Your task to perform on an android device: Go to ESPN.com Image 0: 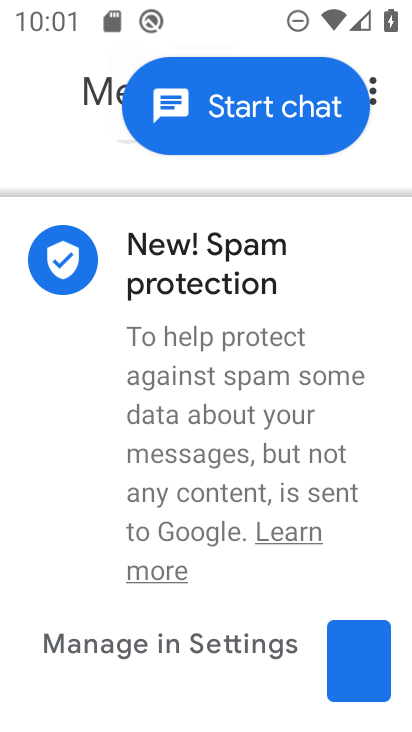
Step 0: press home button
Your task to perform on an android device: Go to ESPN.com Image 1: 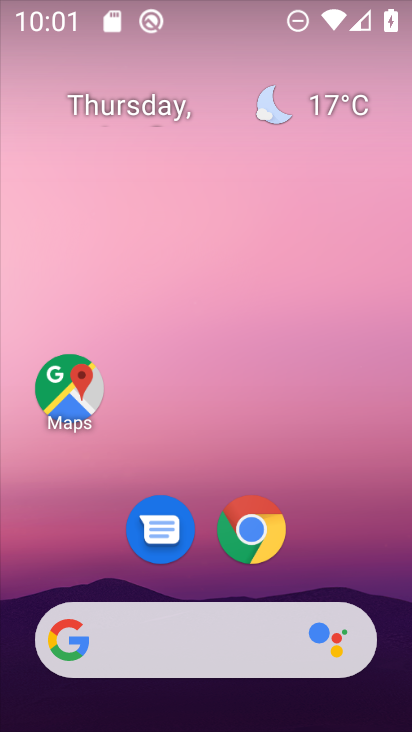
Step 1: click (240, 540)
Your task to perform on an android device: Go to ESPN.com Image 2: 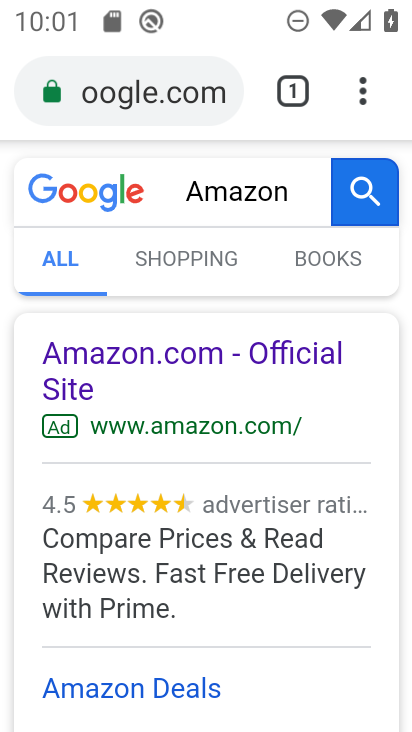
Step 2: click (223, 84)
Your task to perform on an android device: Go to ESPN.com Image 3: 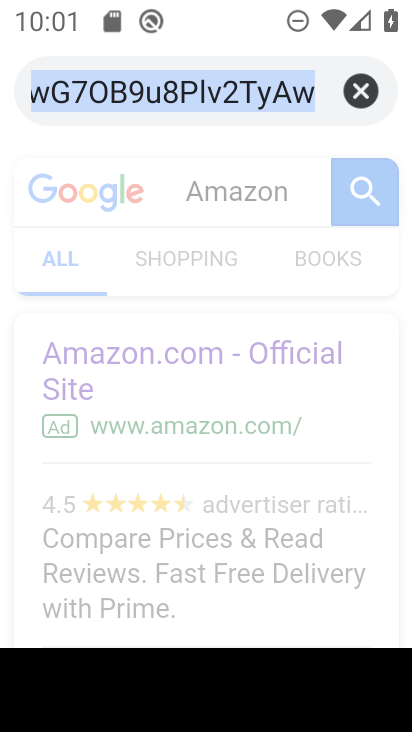
Step 3: click (351, 88)
Your task to perform on an android device: Go to ESPN.com Image 4: 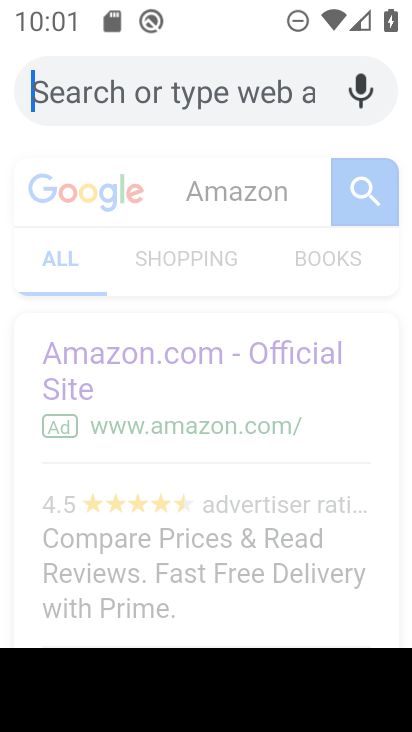
Step 4: type "ESPN.com"
Your task to perform on an android device: Go to ESPN.com Image 5: 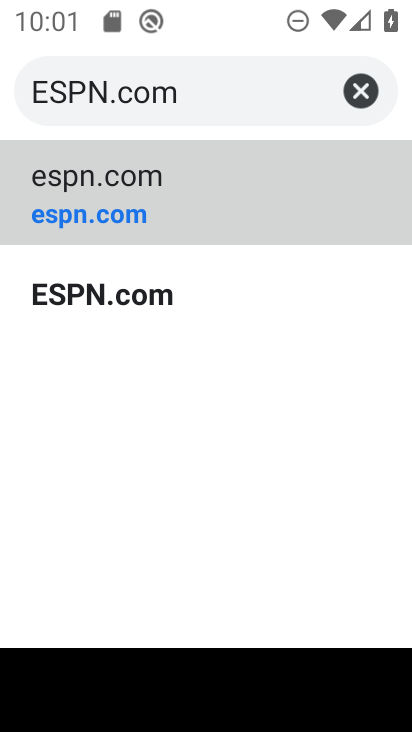
Step 5: click (143, 286)
Your task to perform on an android device: Go to ESPN.com Image 6: 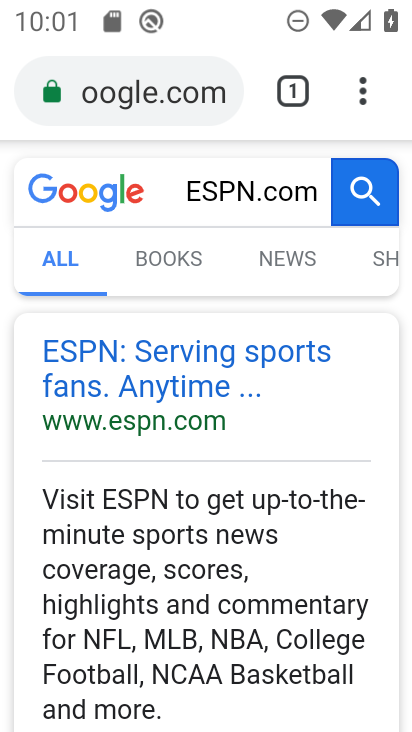
Step 6: task complete